Your task to perform on an android device: Play the new Bruno Mars video on YouTube Image 0: 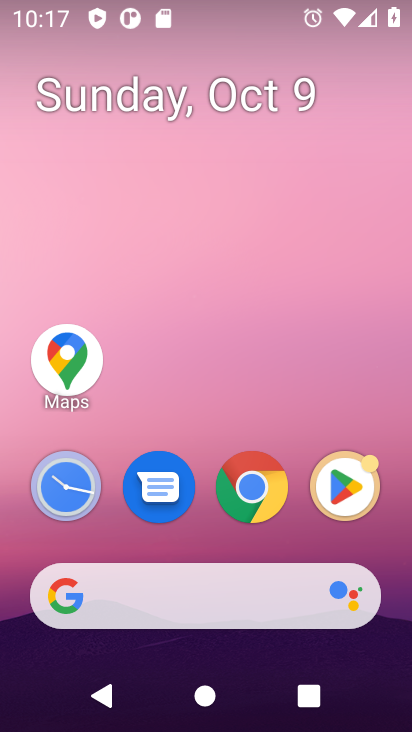
Step 0: drag from (207, 529) to (210, 39)
Your task to perform on an android device: Play the new Bruno Mars video on YouTube Image 1: 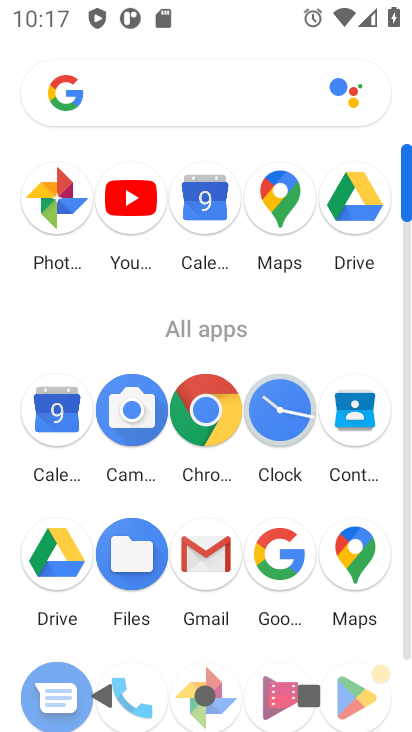
Step 1: click (125, 190)
Your task to perform on an android device: Play the new Bruno Mars video on YouTube Image 2: 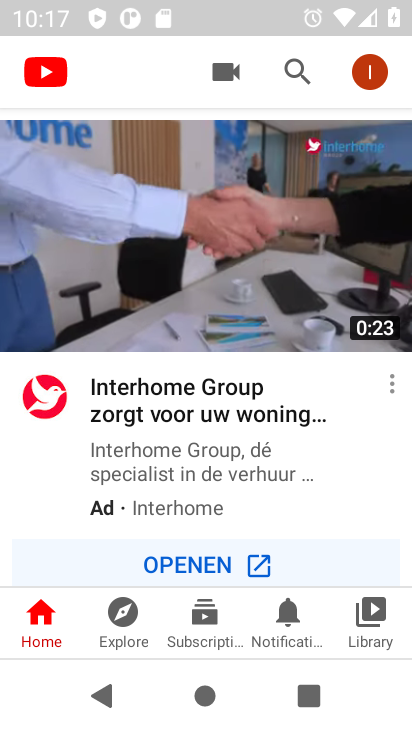
Step 2: click (303, 57)
Your task to perform on an android device: Play the new Bruno Mars video on YouTube Image 3: 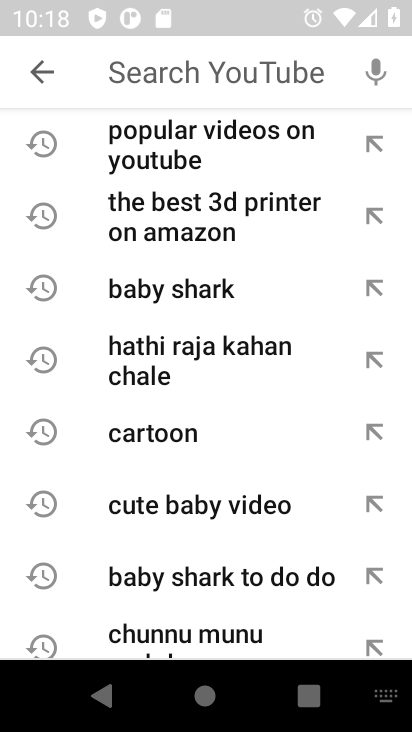
Step 3: type "Play the new Bruno Mars video"
Your task to perform on an android device: Play the new Bruno Mars video on YouTube Image 4: 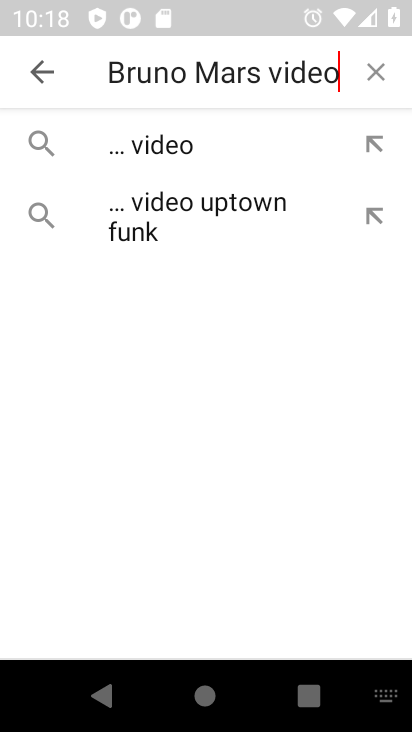
Step 4: click (137, 143)
Your task to perform on an android device: Play the new Bruno Mars video on YouTube Image 5: 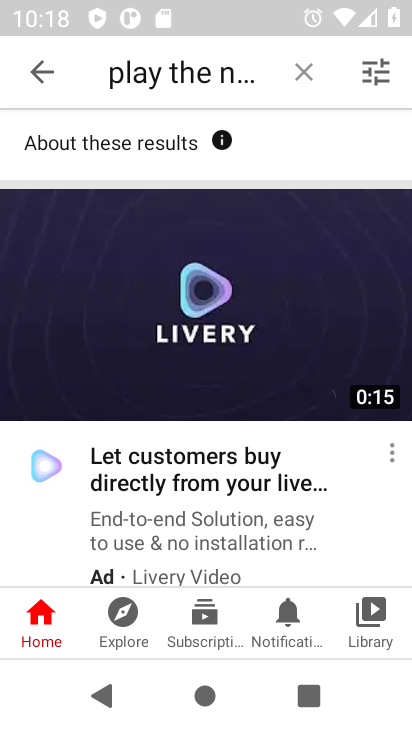
Step 5: drag from (218, 535) to (180, 402)
Your task to perform on an android device: Play the new Bruno Mars video on YouTube Image 6: 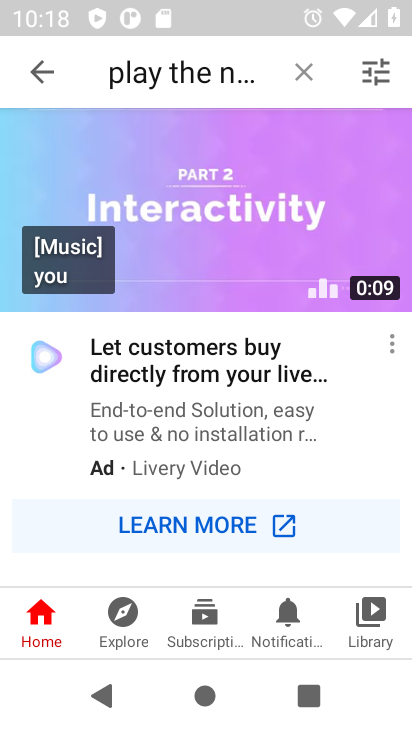
Step 6: drag from (235, 470) to (220, 291)
Your task to perform on an android device: Play the new Bruno Mars video on YouTube Image 7: 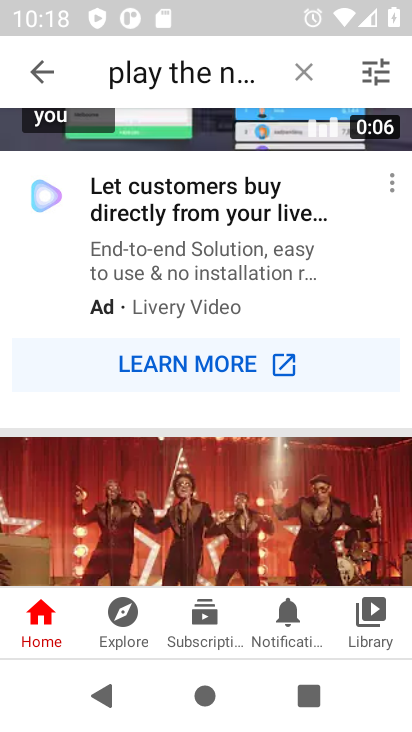
Step 7: drag from (230, 480) to (219, 213)
Your task to perform on an android device: Play the new Bruno Mars video on YouTube Image 8: 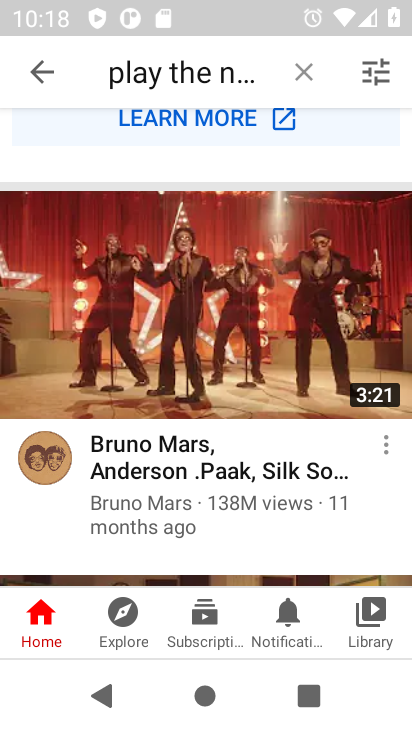
Step 8: click (155, 124)
Your task to perform on an android device: Play the new Bruno Mars video on YouTube Image 9: 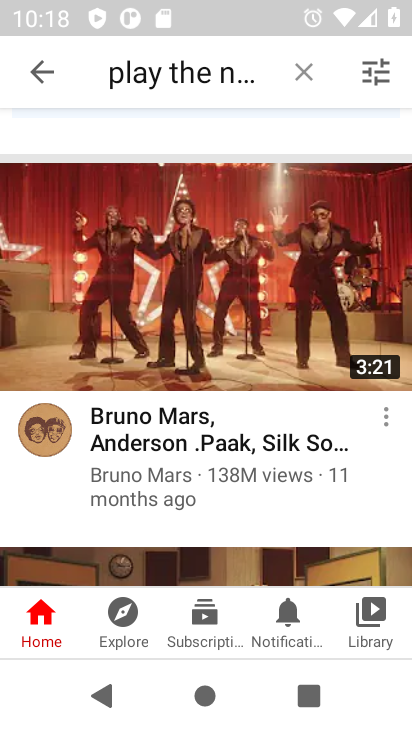
Step 9: click (42, 419)
Your task to perform on an android device: Play the new Bruno Mars video on YouTube Image 10: 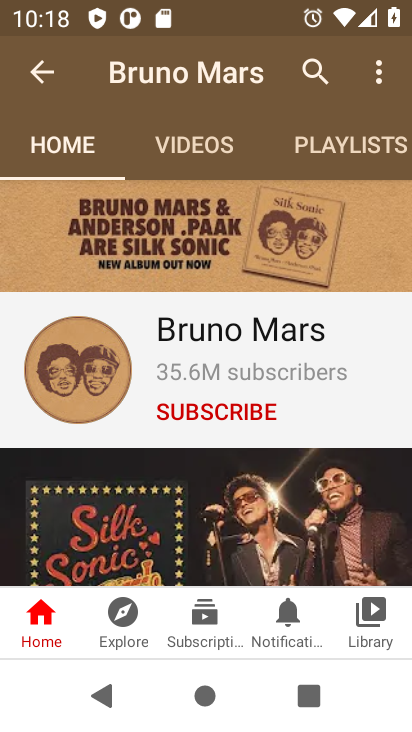
Step 10: click (168, 146)
Your task to perform on an android device: Play the new Bruno Mars video on YouTube Image 11: 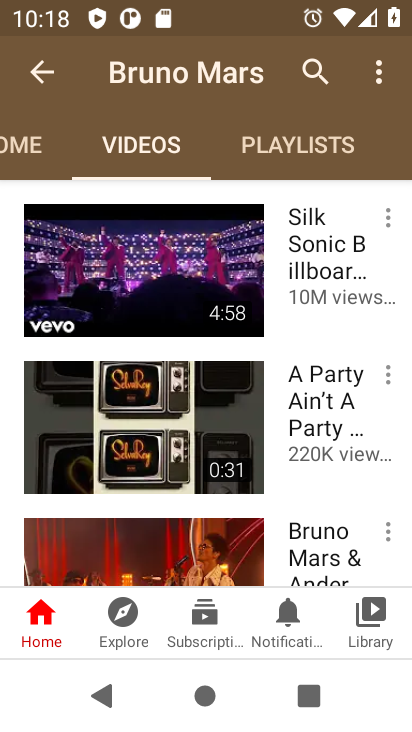
Step 11: click (315, 262)
Your task to perform on an android device: Play the new Bruno Mars video on YouTube Image 12: 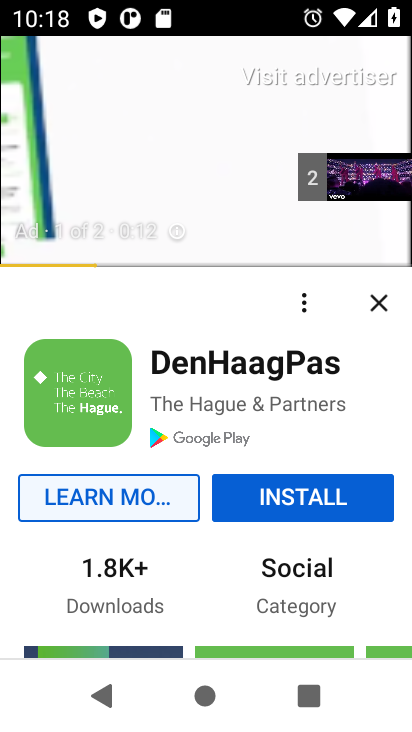
Step 12: click (377, 306)
Your task to perform on an android device: Play the new Bruno Mars video on YouTube Image 13: 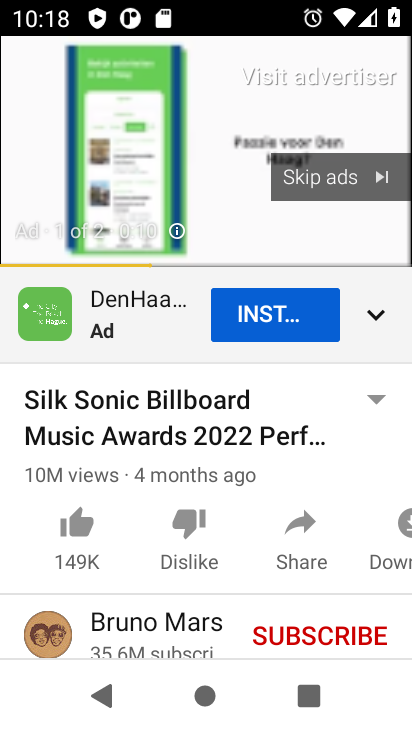
Step 13: click (329, 184)
Your task to perform on an android device: Play the new Bruno Mars video on YouTube Image 14: 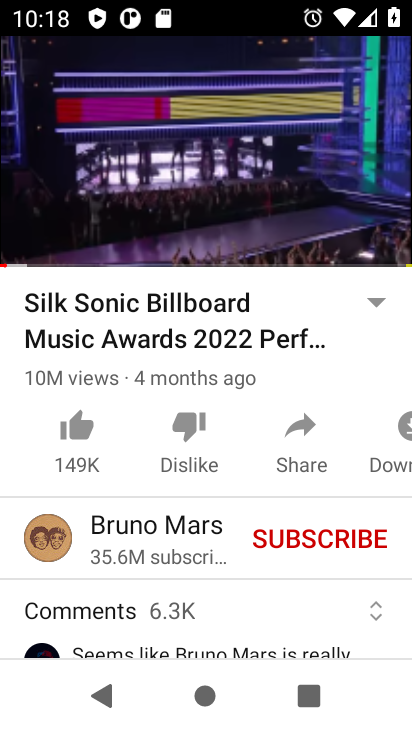
Step 14: task complete